Your task to perform on an android device: turn off notifications settings in the gmail app Image 0: 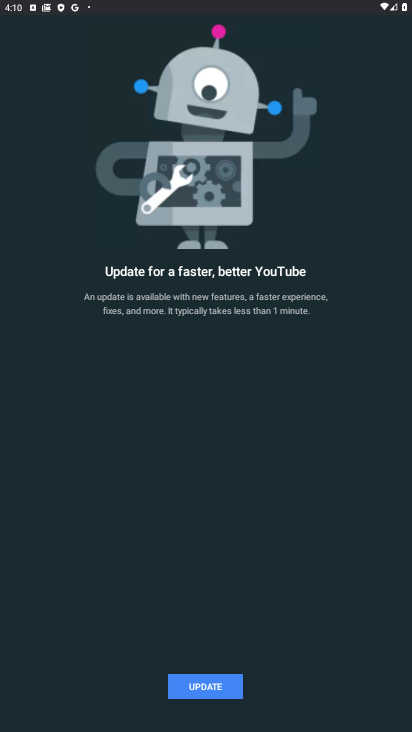
Step 0: press home button
Your task to perform on an android device: turn off notifications settings in the gmail app Image 1: 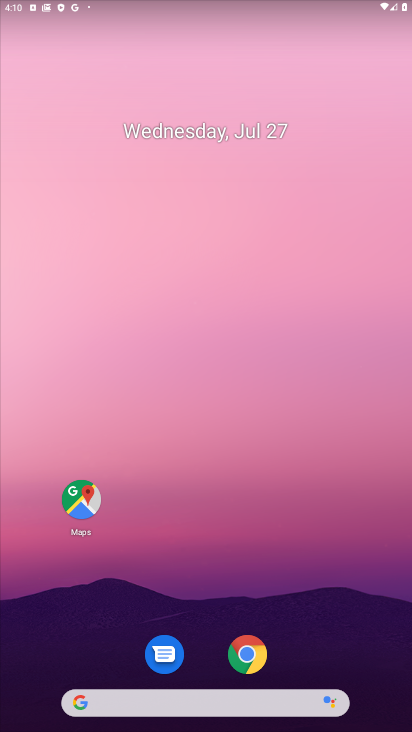
Step 1: drag from (174, 678) to (193, 106)
Your task to perform on an android device: turn off notifications settings in the gmail app Image 2: 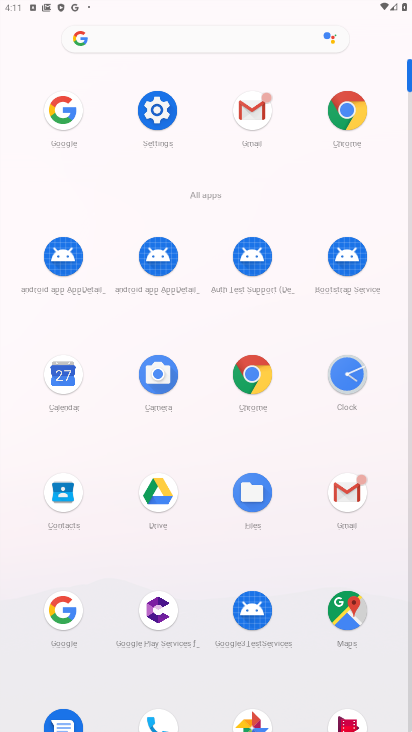
Step 2: click (365, 491)
Your task to perform on an android device: turn off notifications settings in the gmail app Image 3: 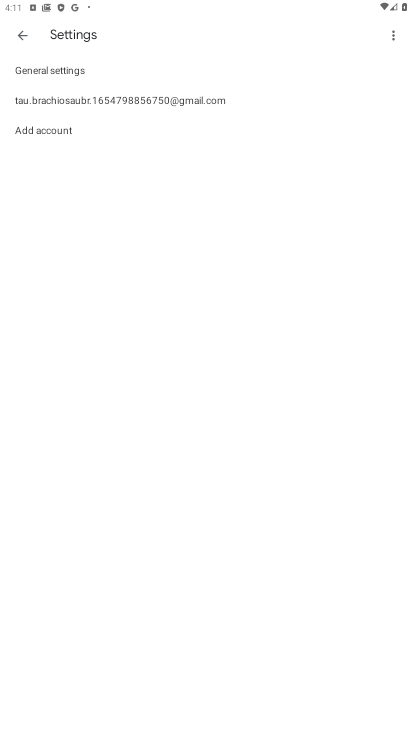
Step 3: click (58, 105)
Your task to perform on an android device: turn off notifications settings in the gmail app Image 4: 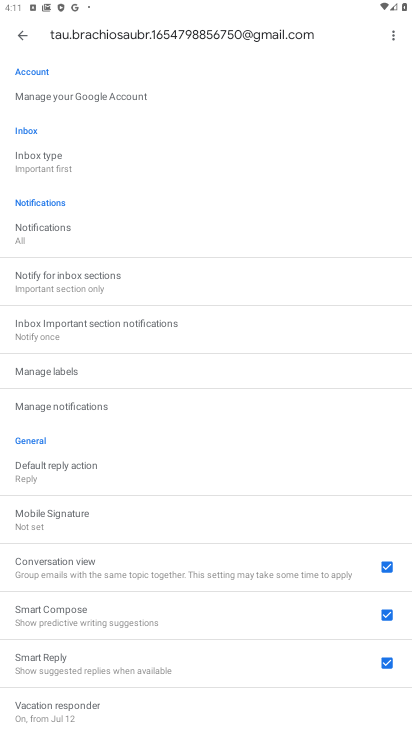
Step 4: click (66, 412)
Your task to perform on an android device: turn off notifications settings in the gmail app Image 5: 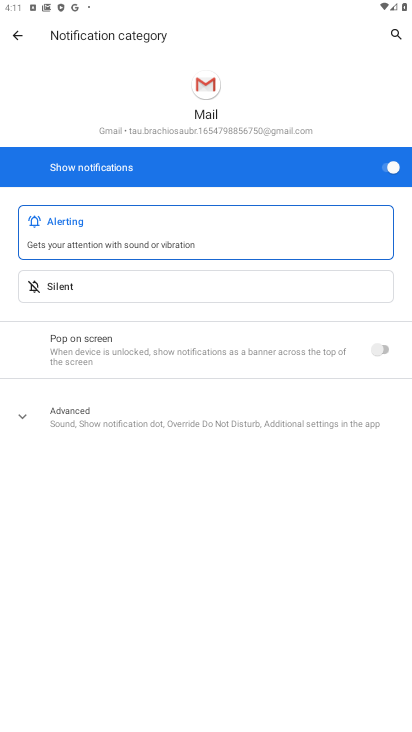
Step 5: click (391, 167)
Your task to perform on an android device: turn off notifications settings in the gmail app Image 6: 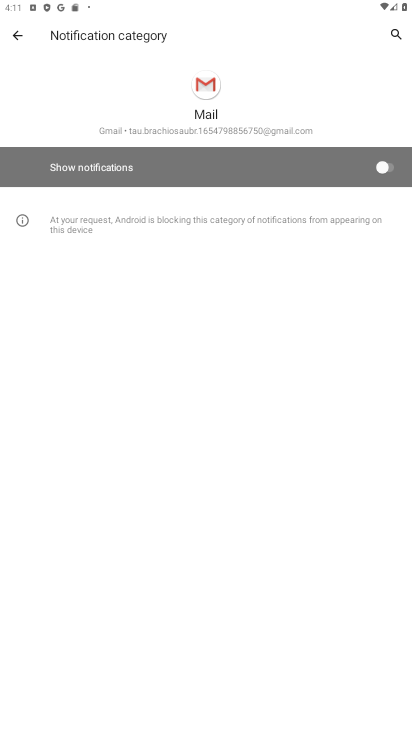
Step 6: task complete